Your task to perform on an android device: Show me productivity apps on the Play Store Image 0: 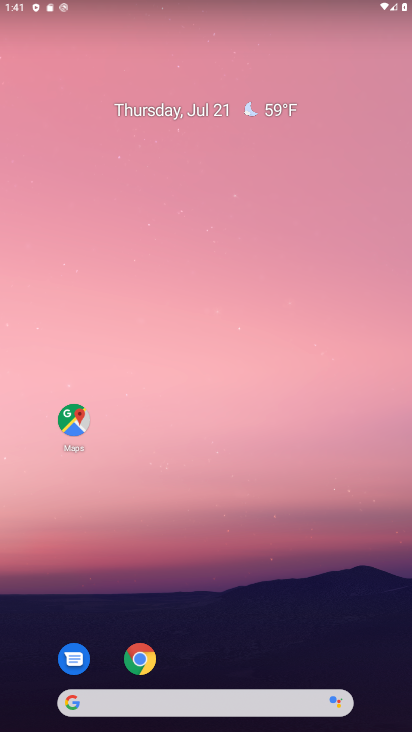
Step 0: drag from (222, 691) to (253, 212)
Your task to perform on an android device: Show me productivity apps on the Play Store Image 1: 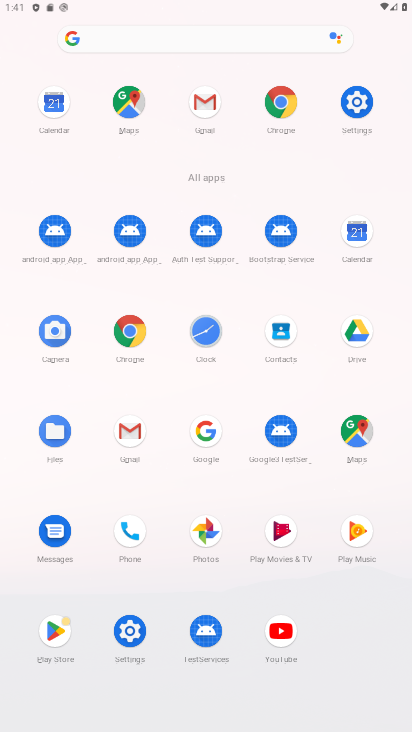
Step 1: click (39, 625)
Your task to perform on an android device: Show me productivity apps on the Play Store Image 2: 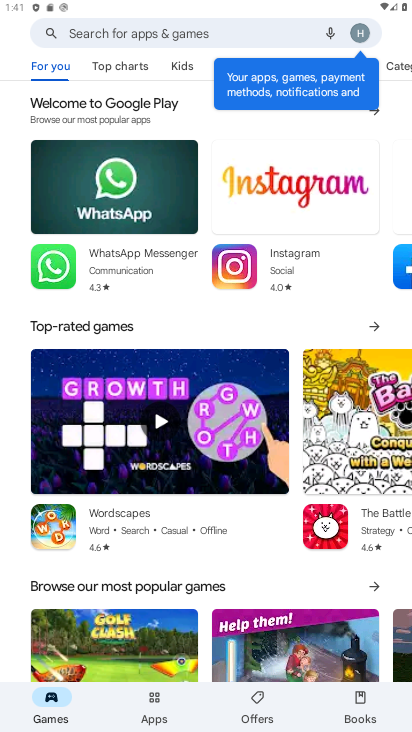
Step 2: click (153, 706)
Your task to perform on an android device: Show me productivity apps on the Play Store Image 3: 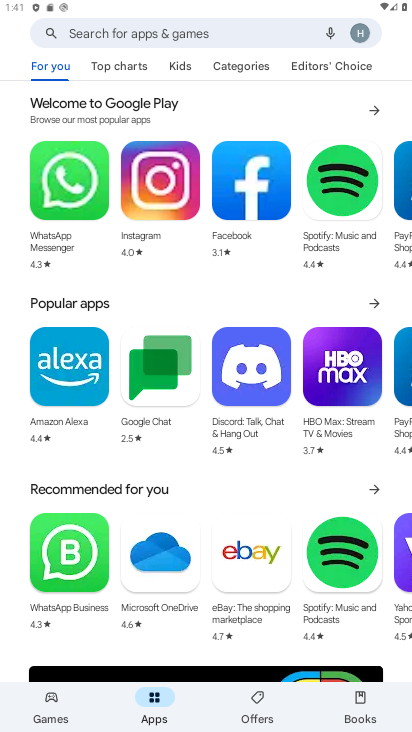
Step 3: click (243, 63)
Your task to perform on an android device: Show me productivity apps on the Play Store Image 4: 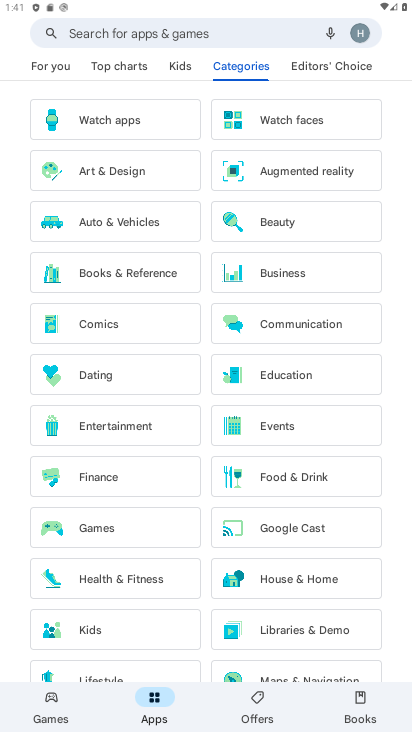
Step 4: drag from (147, 528) to (198, 74)
Your task to perform on an android device: Show me productivity apps on the Play Store Image 5: 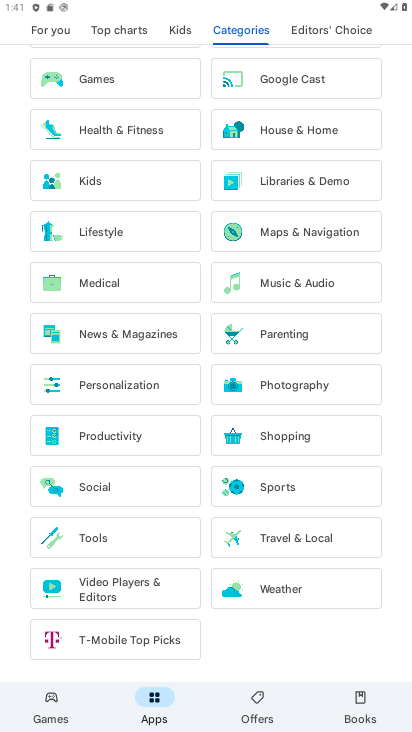
Step 5: click (168, 430)
Your task to perform on an android device: Show me productivity apps on the Play Store Image 6: 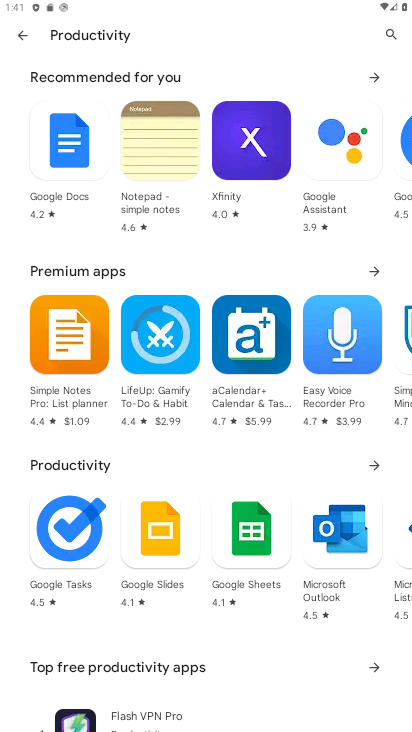
Step 6: task complete